Your task to perform on an android device: Open Google Chrome and click the shortcut for Amazon.com Image 0: 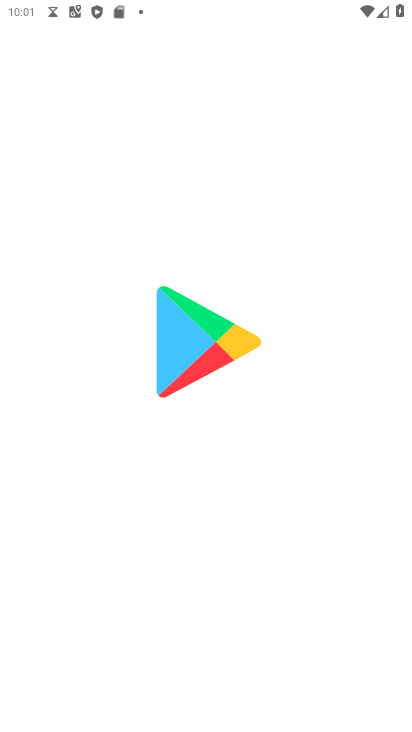
Step 0: press home button
Your task to perform on an android device: Open Google Chrome and click the shortcut for Amazon.com Image 1: 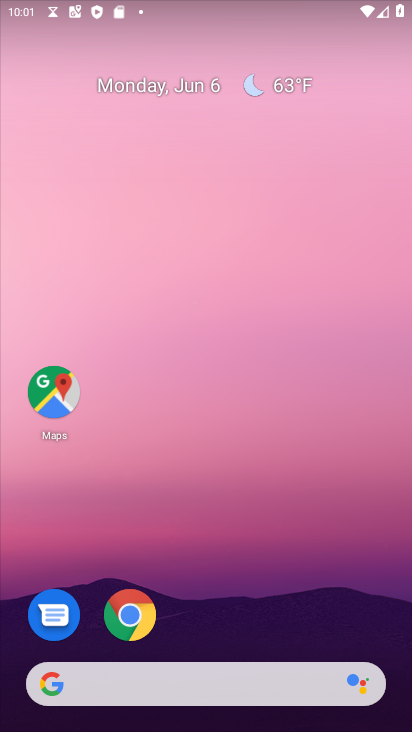
Step 1: click (129, 609)
Your task to perform on an android device: Open Google Chrome and click the shortcut for Amazon.com Image 2: 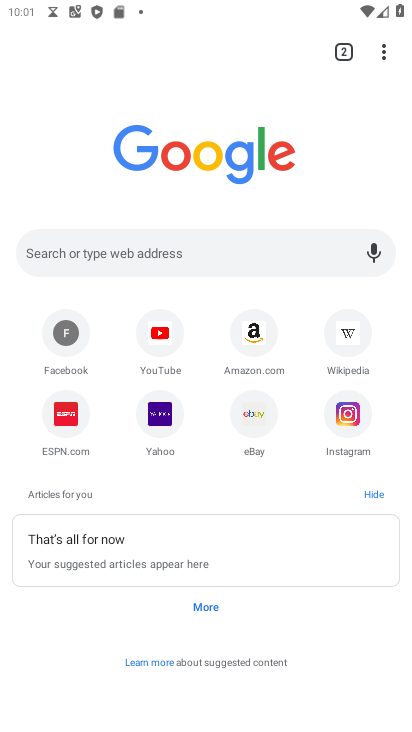
Step 2: click (251, 321)
Your task to perform on an android device: Open Google Chrome and click the shortcut for Amazon.com Image 3: 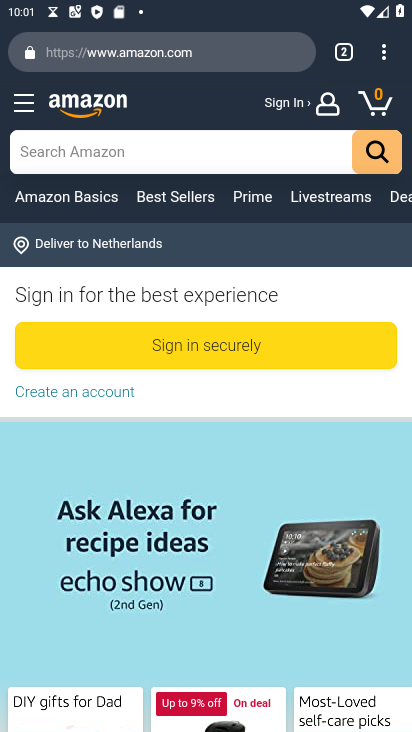
Step 3: task complete